Your task to perform on an android device: toggle wifi Image 0: 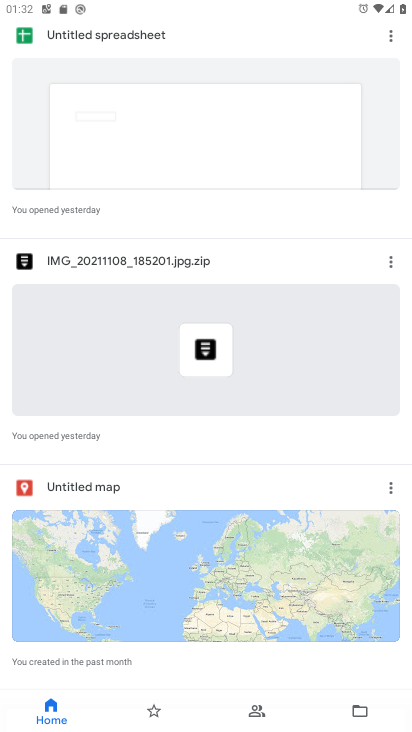
Step 0: press home button
Your task to perform on an android device: toggle wifi Image 1: 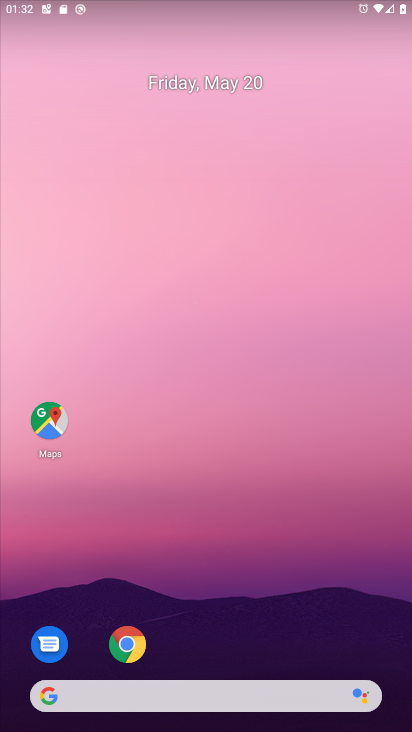
Step 1: drag from (156, 678) to (185, 381)
Your task to perform on an android device: toggle wifi Image 2: 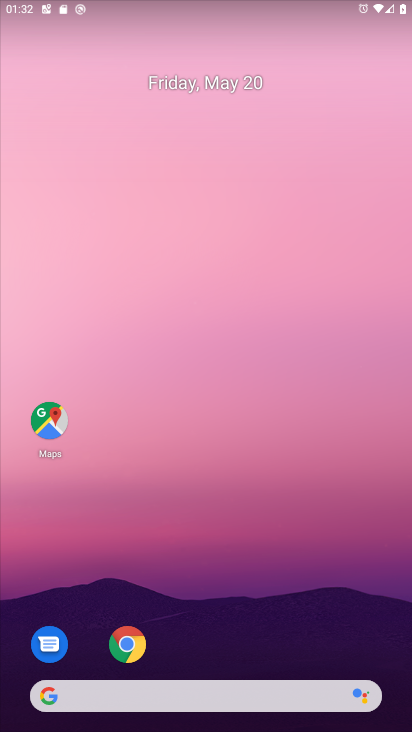
Step 2: drag from (168, 669) to (192, 325)
Your task to perform on an android device: toggle wifi Image 3: 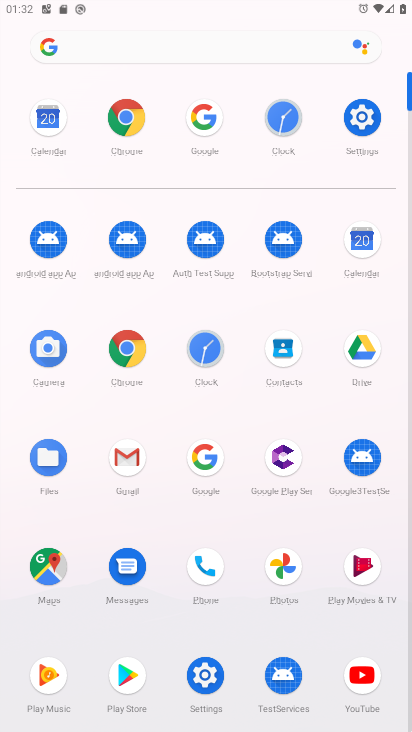
Step 3: click (356, 125)
Your task to perform on an android device: toggle wifi Image 4: 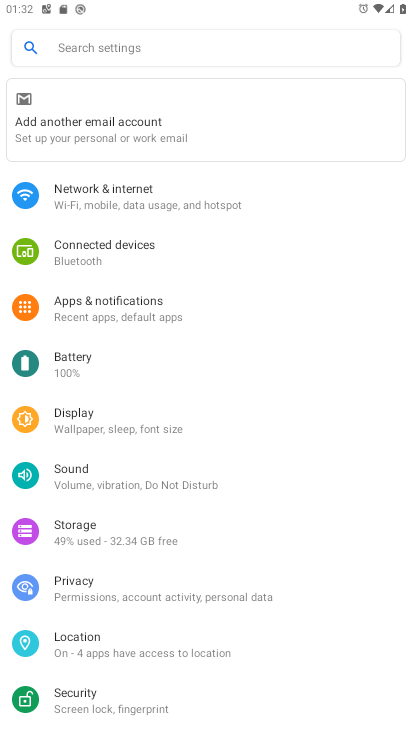
Step 4: click (103, 204)
Your task to perform on an android device: toggle wifi Image 5: 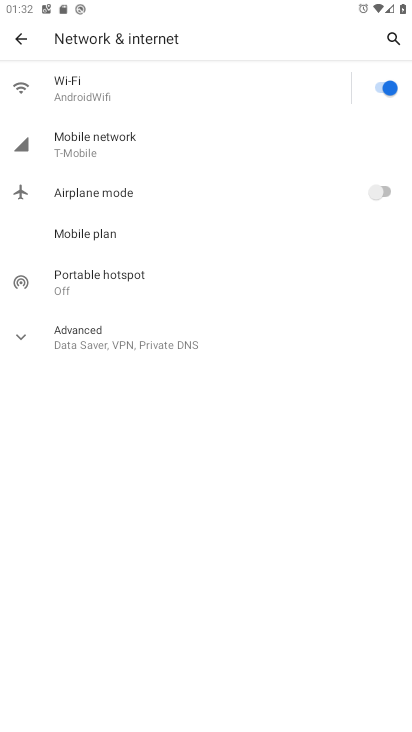
Step 5: click (123, 331)
Your task to perform on an android device: toggle wifi Image 6: 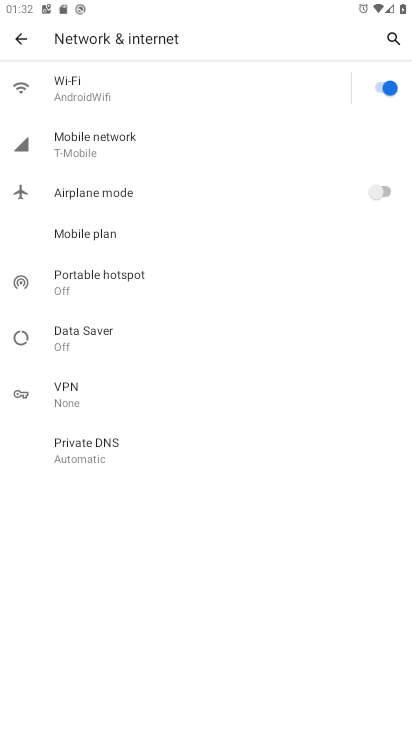
Step 6: click (76, 92)
Your task to perform on an android device: toggle wifi Image 7: 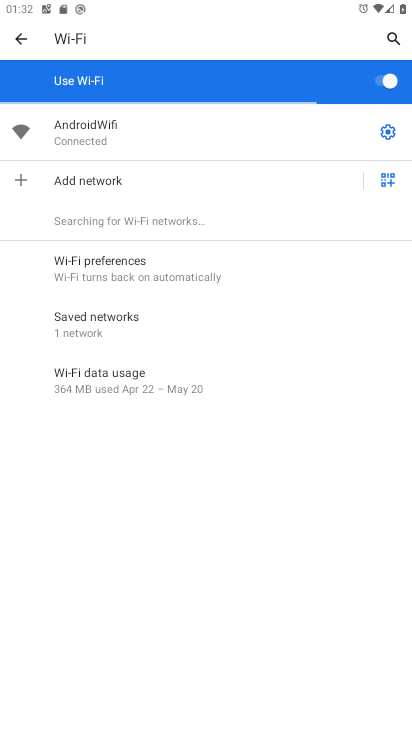
Step 7: click (380, 84)
Your task to perform on an android device: toggle wifi Image 8: 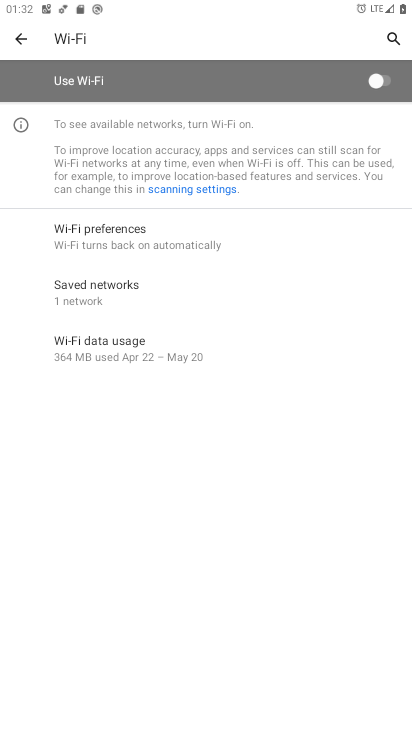
Step 8: task complete